Your task to perform on an android device: Show me popular games on the Play Store Image 0: 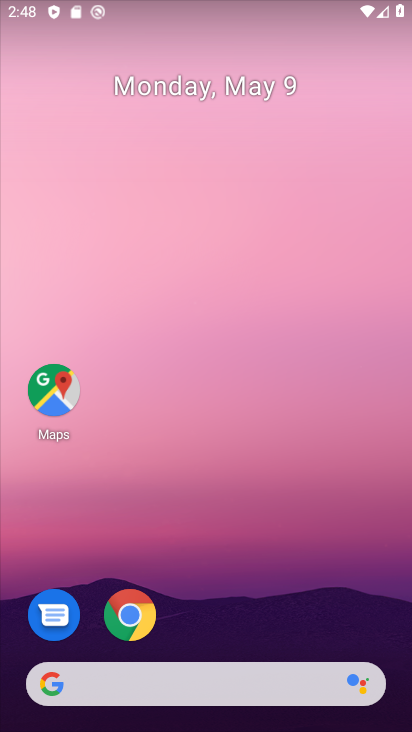
Step 0: drag from (293, 632) to (276, 221)
Your task to perform on an android device: Show me popular games on the Play Store Image 1: 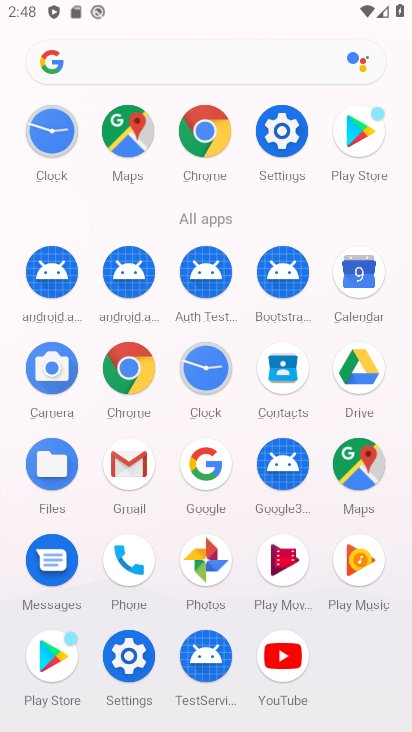
Step 1: click (32, 654)
Your task to perform on an android device: Show me popular games on the Play Store Image 2: 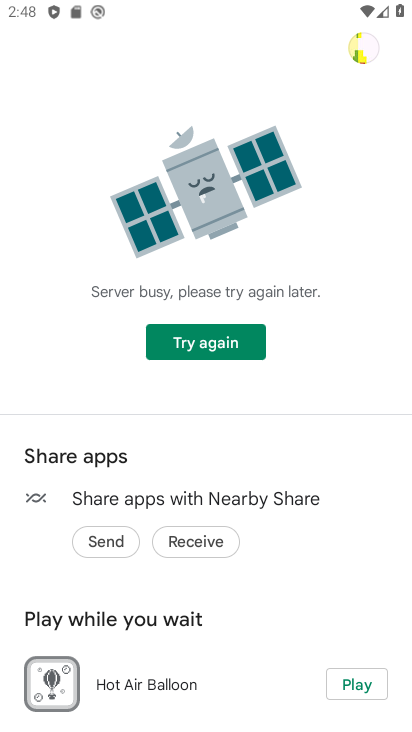
Step 2: task complete